Your task to perform on an android device: Go to Amazon Image 0: 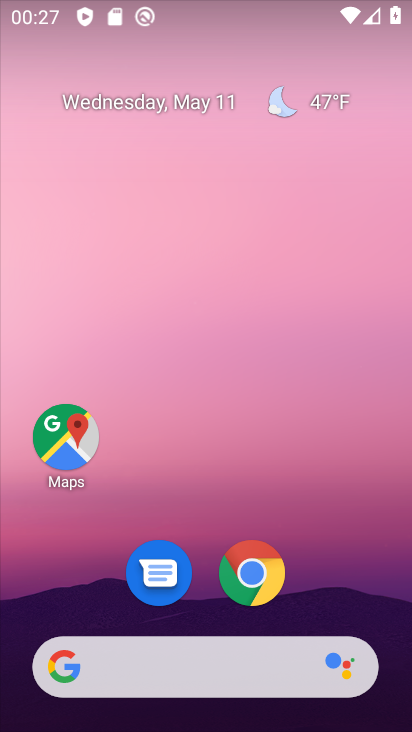
Step 0: press home button
Your task to perform on an android device: Go to Amazon Image 1: 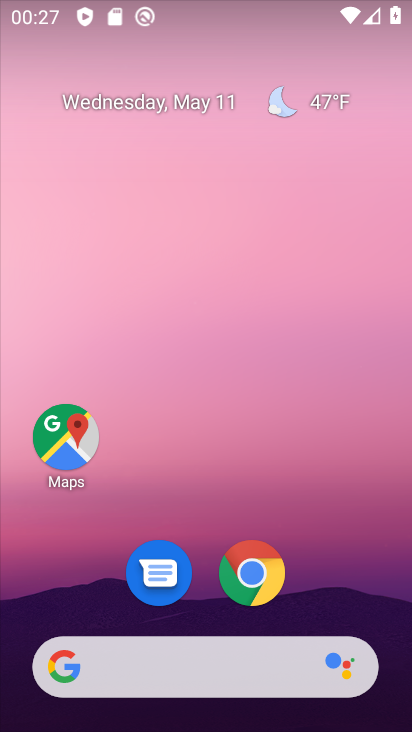
Step 1: press home button
Your task to perform on an android device: Go to Amazon Image 2: 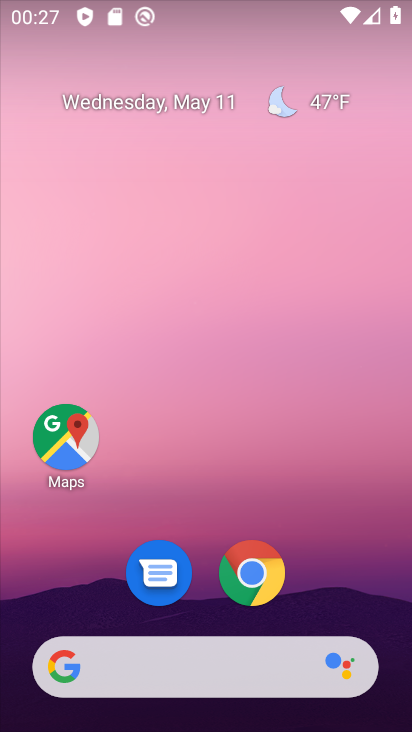
Step 2: click (255, 558)
Your task to perform on an android device: Go to Amazon Image 3: 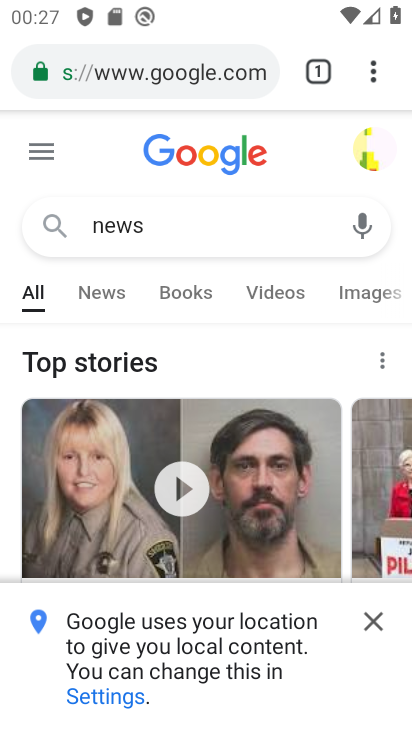
Step 3: click (231, 52)
Your task to perform on an android device: Go to Amazon Image 4: 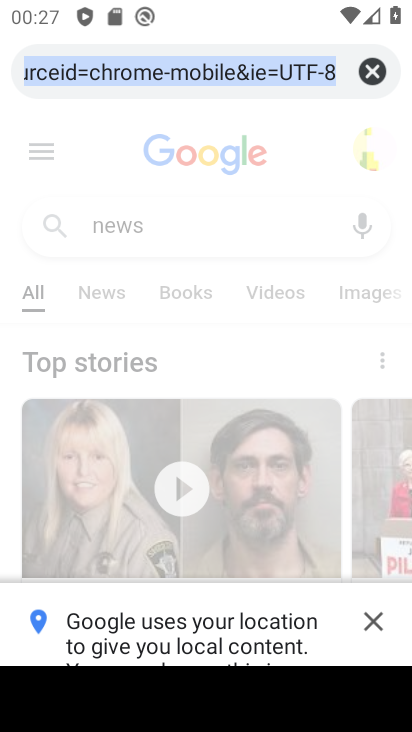
Step 4: click (367, 78)
Your task to perform on an android device: Go to Amazon Image 5: 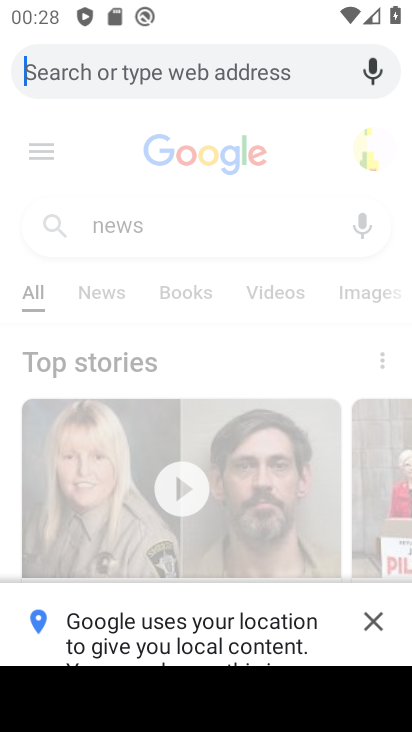
Step 5: type " Amazon"
Your task to perform on an android device: Go to Amazon Image 6: 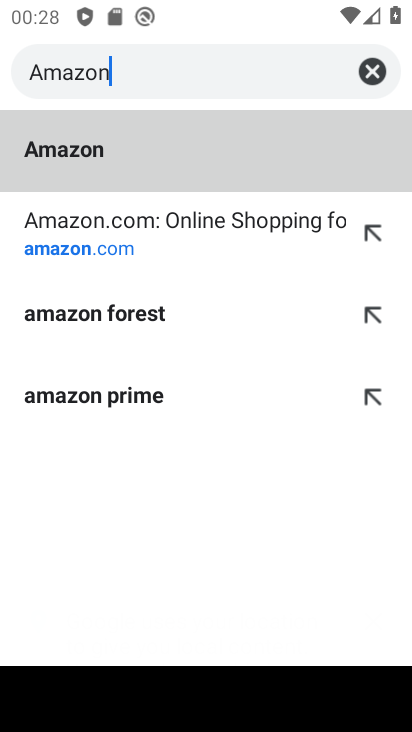
Step 6: click (120, 241)
Your task to perform on an android device: Go to Amazon Image 7: 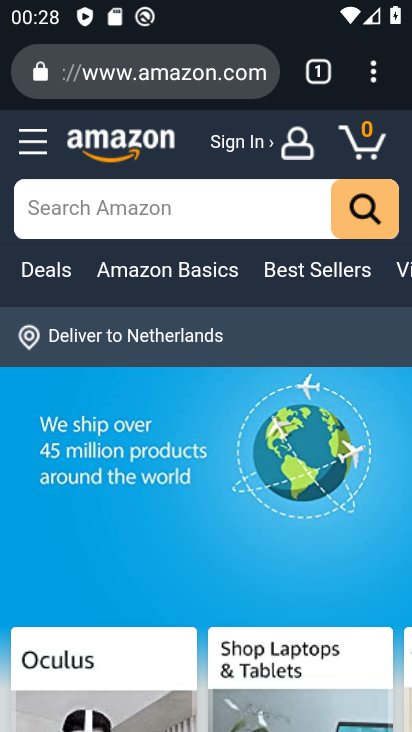
Step 7: task complete